Your task to perform on an android device: Open Yahoo.com Image 0: 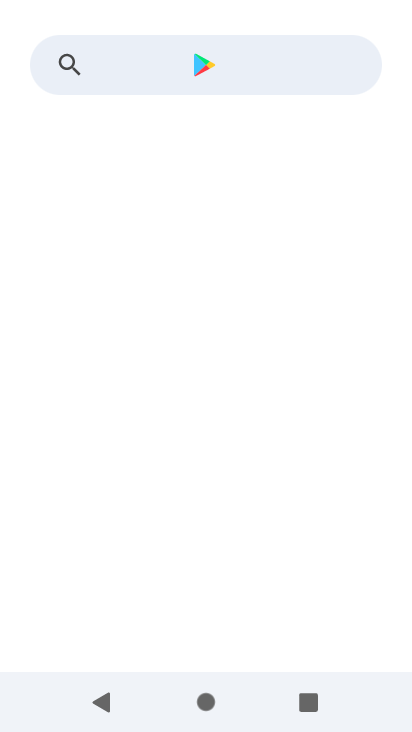
Step 0: press home button
Your task to perform on an android device: Open Yahoo.com Image 1: 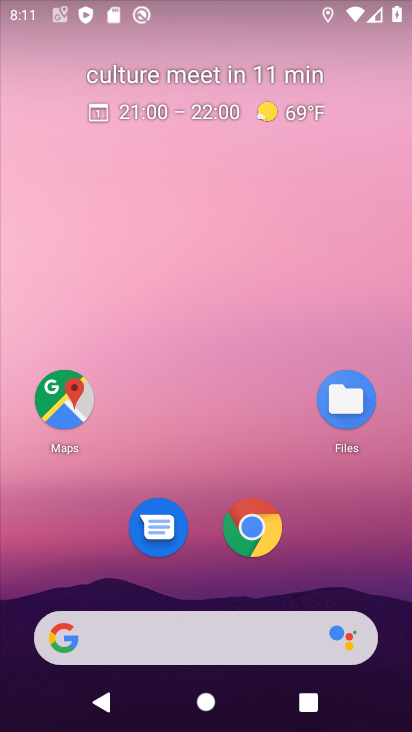
Step 1: drag from (223, 569) to (232, 93)
Your task to perform on an android device: Open Yahoo.com Image 2: 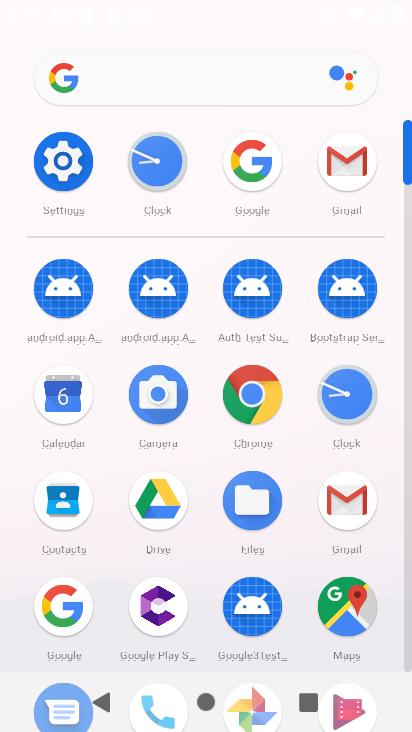
Step 2: click (253, 398)
Your task to perform on an android device: Open Yahoo.com Image 3: 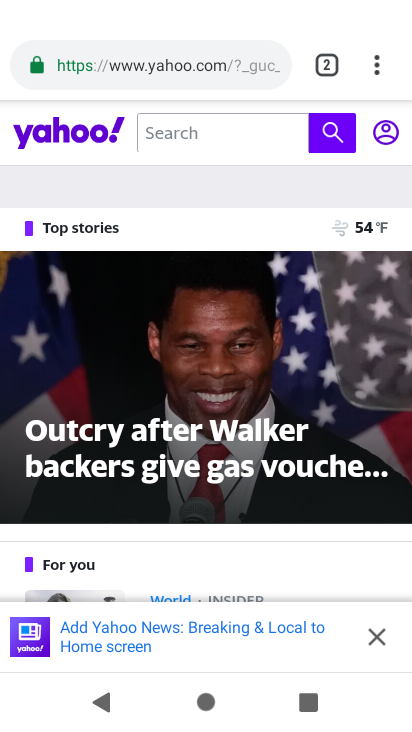
Step 3: task complete